Your task to perform on an android device: all mails in gmail Image 0: 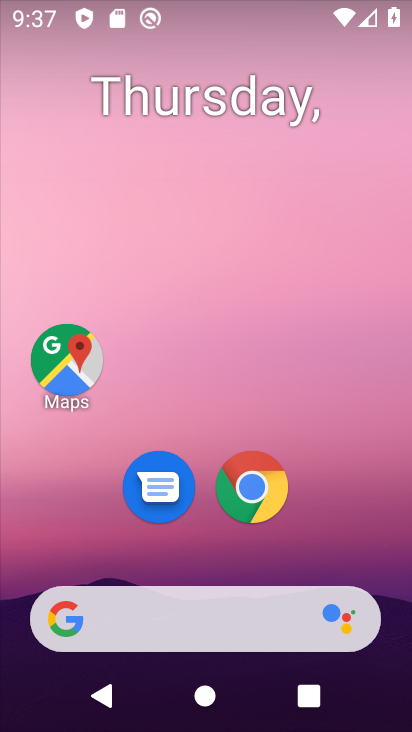
Step 0: drag from (332, 542) to (194, 193)
Your task to perform on an android device: all mails in gmail Image 1: 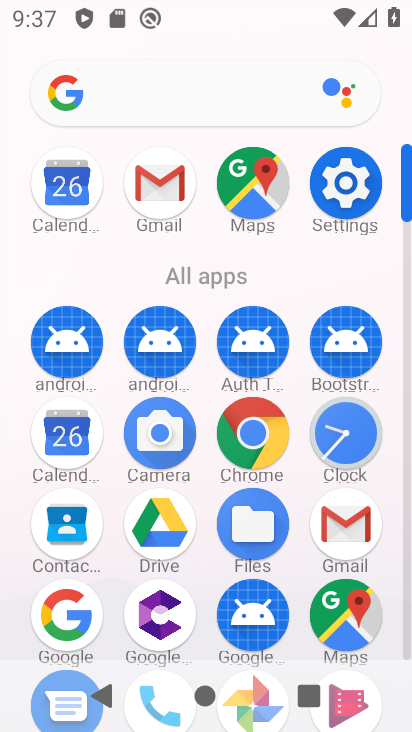
Step 1: click (148, 175)
Your task to perform on an android device: all mails in gmail Image 2: 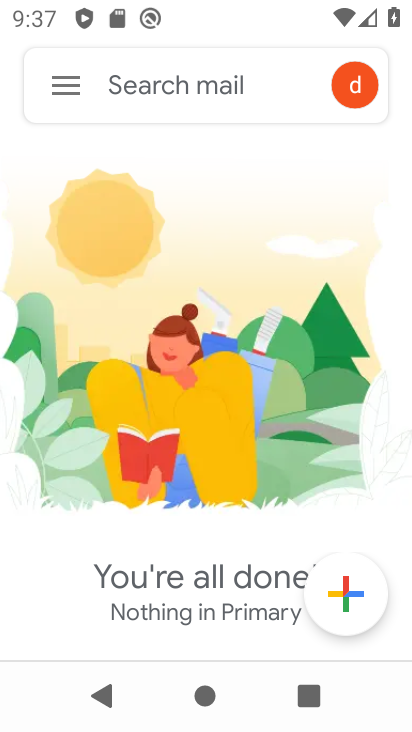
Step 2: click (67, 91)
Your task to perform on an android device: all mails in gmail Image 3: 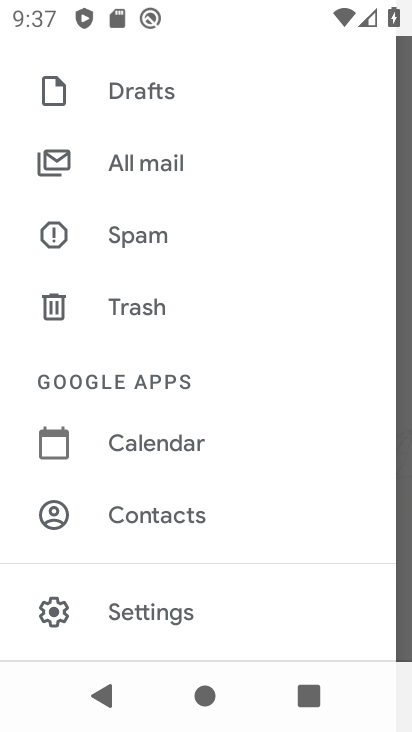
Step 3: click (162, 171)
Your task to perform on an android device: all mails in gmail Image 4: 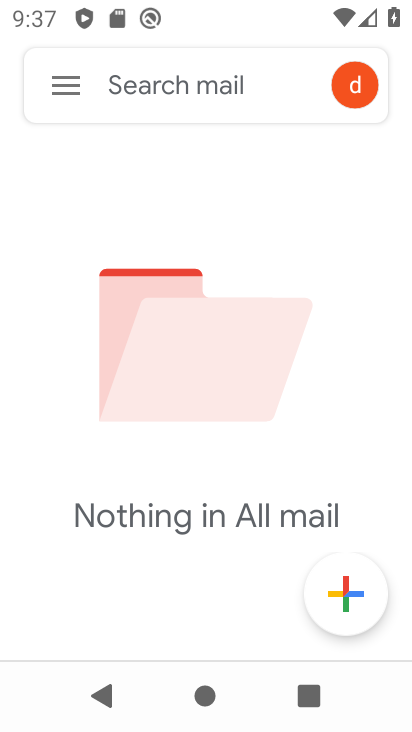
Step 4: task complete